Your task to perform on an android device: toggle airplane mode Image 0: 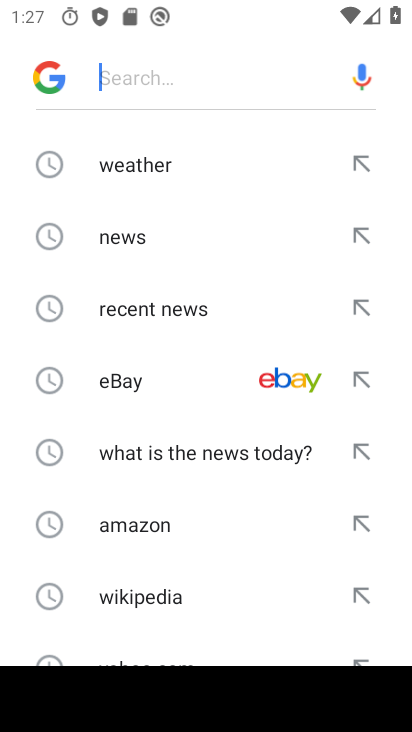
Step 0: drag from (208, 9) to (184, 595)
Your task to perform on an android device: toggle airplane mode Image 1: 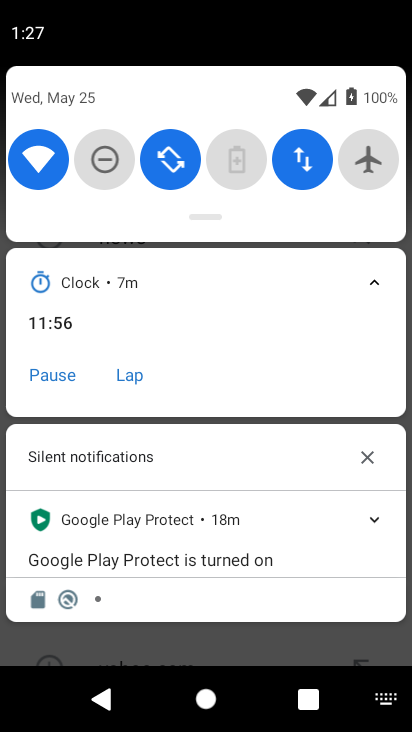
Step 1: click (382, 171)
Your task to perform on an android device: toggle airplane mode Image 2: 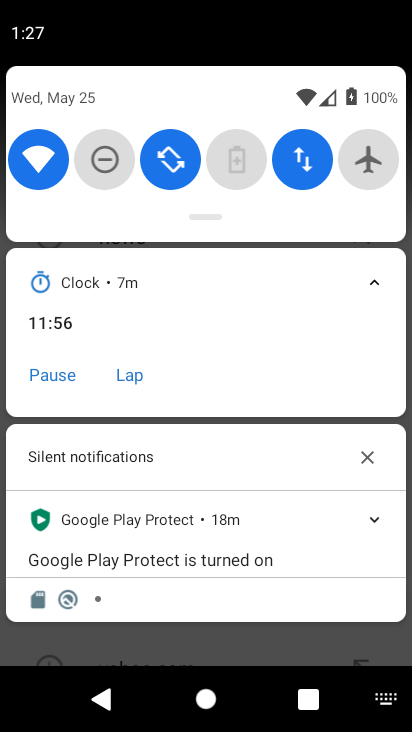
Step 2: click (382, 171)
Your task to perform on an android device: toggle airplane mode Image 3: 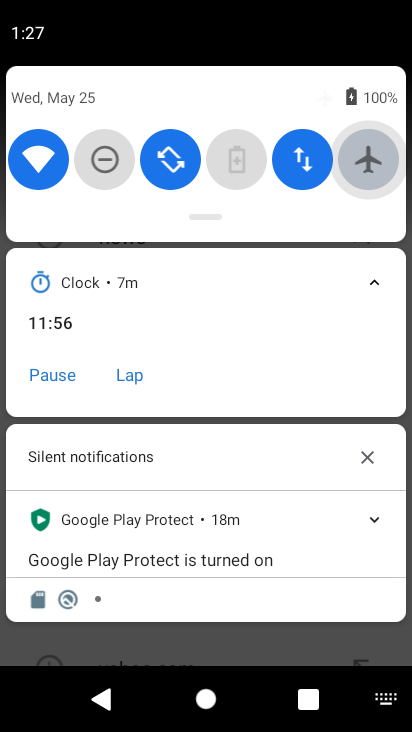
Step 3: click (382, 171)
Your task to perform on an android device: toggle airplane mode Image 4: 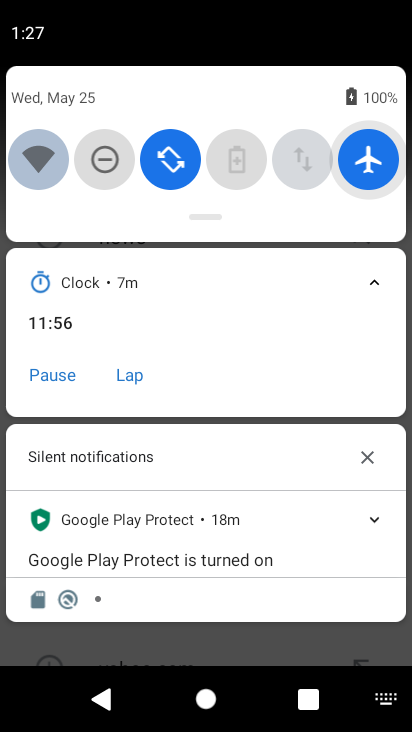
Step 4: click (382, 171)
Your task to perform on an android device: toggle airplane mode Image 5: 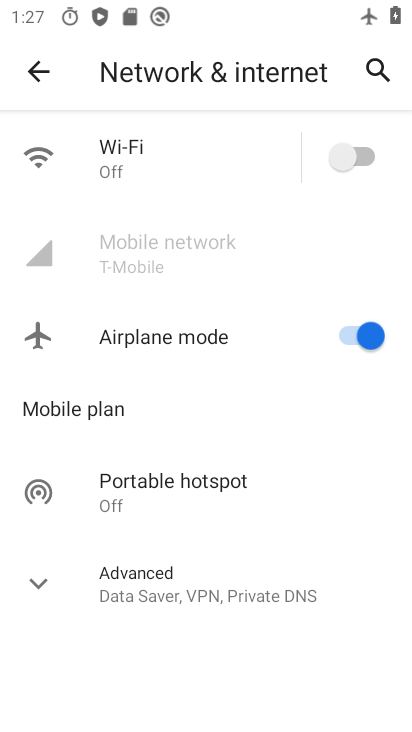
Step 5: click (380, 331)
Your task to perform on an android device: toggle airplane mode Image 6: 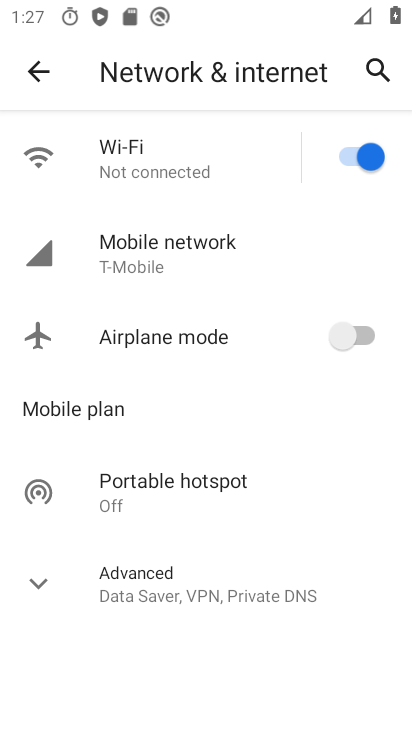
Step 6: task complete